Your task to perform on an android device: Search for the best rated headphones on Walmart Image 0: 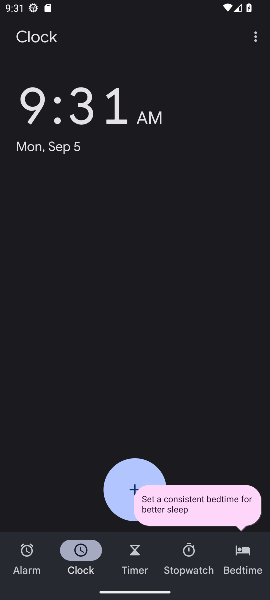
Step 0: press home button
Your task to perform on an android device: Search for the best rated headphones on Walmart Image 1: 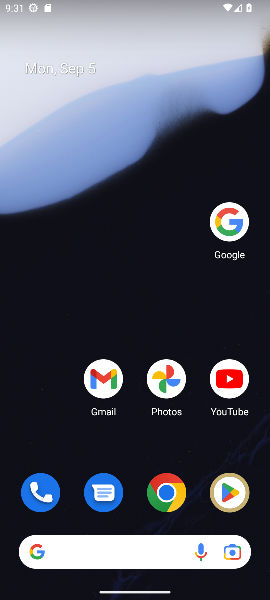
Step 1: click (240, 232)
Your task to perform on an android device: Search for the best rated headphones on Walmart Image 2: 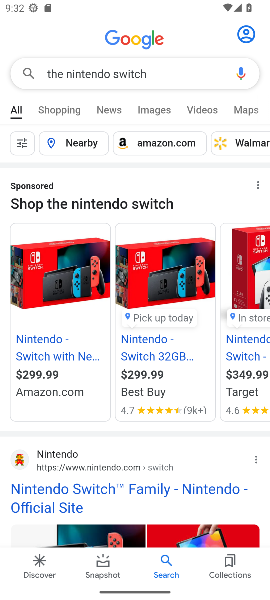
Step 2: task complete